Your task to perform on an android device: Toggle the flashlight Image 0: 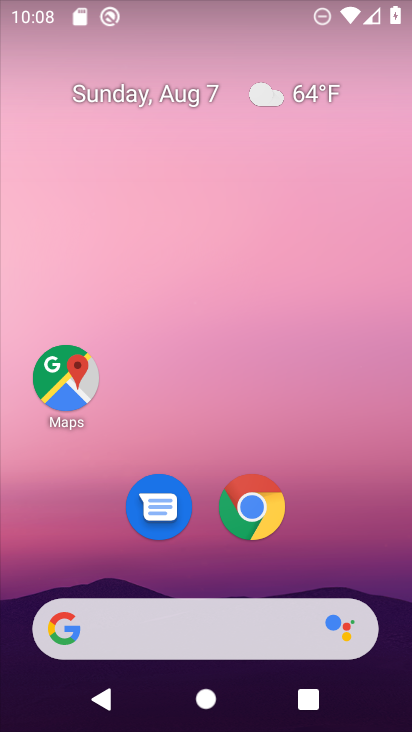
Step 0: drag from (350, 522) to (279, 10)
Your task to perform on an android device: Toggle the flashlight Image 1: 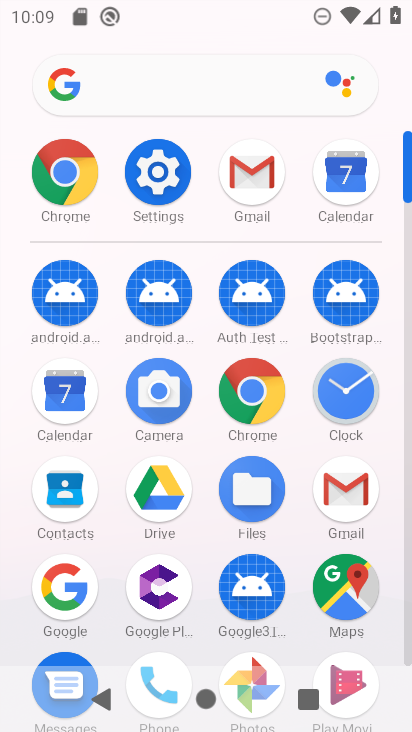
Step 1: click (164, 180)
Your task to perform on an android device: Toggle the flashlight Image 2: 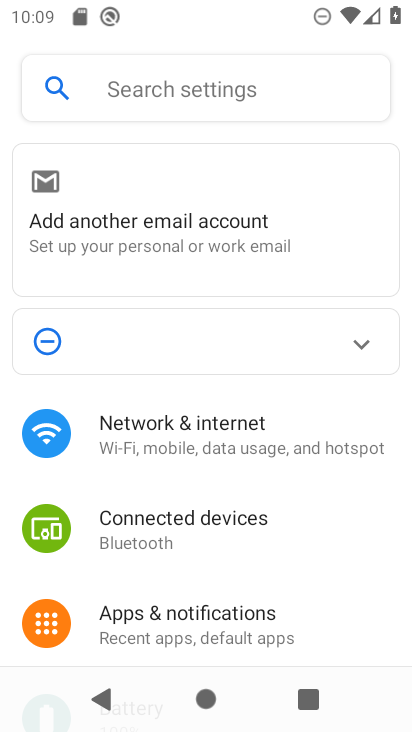
Step 2: drag from (280, 519) to (354, 113)
Your task to perform on an android device: Toggle the flashlight Image 3: 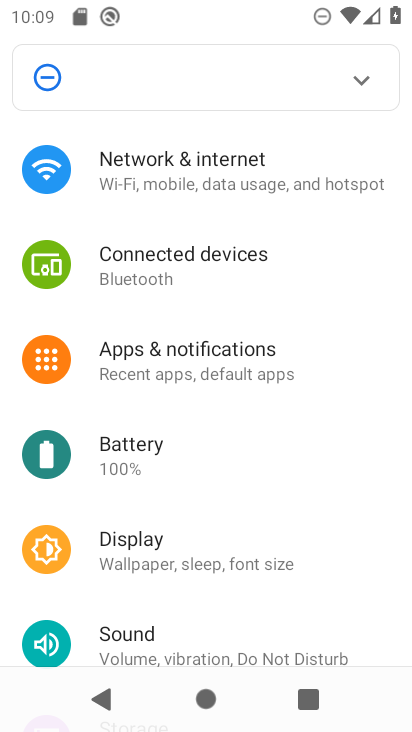
Step 3: click (165, 544)
Your task to perform on an android device: Toggle the flashlight Image 4: 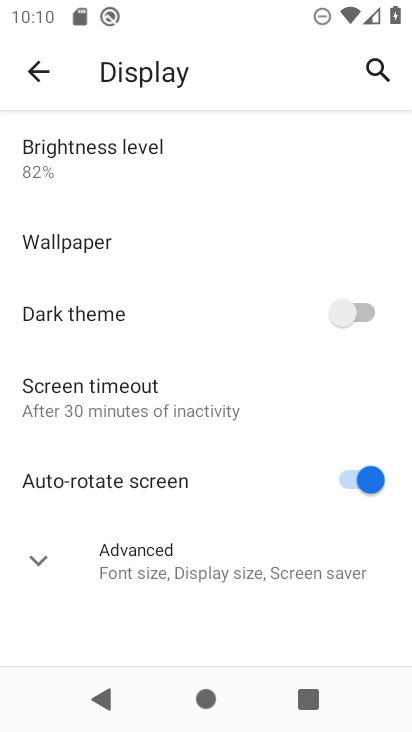
Step 4: task complete